Your task to perform on an android device: Open Reddit.com Image 0: 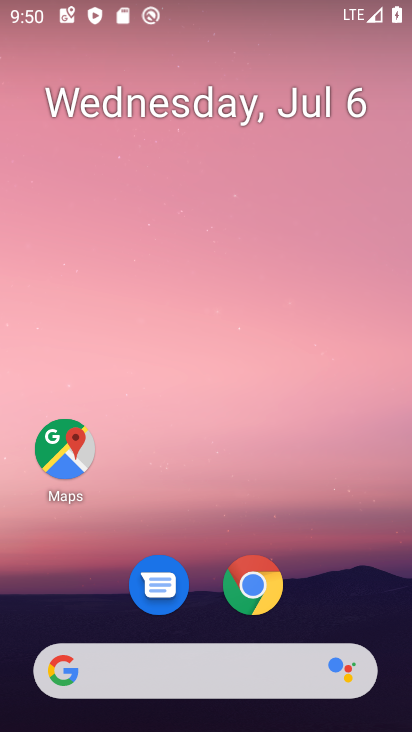
Step 0: drag from (214, 503) to (271, 41)
Your task to perform on an android device: Open Reddit.com Image 1: 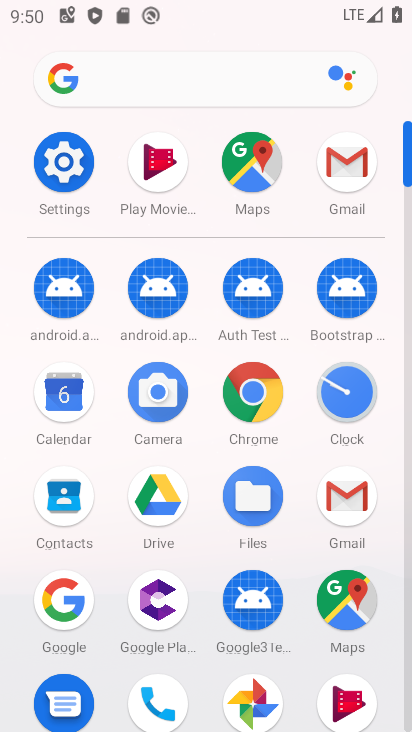
Step 1: click (261, 397)
Your task to perform on an android device: Open Reddit.com Image 2: 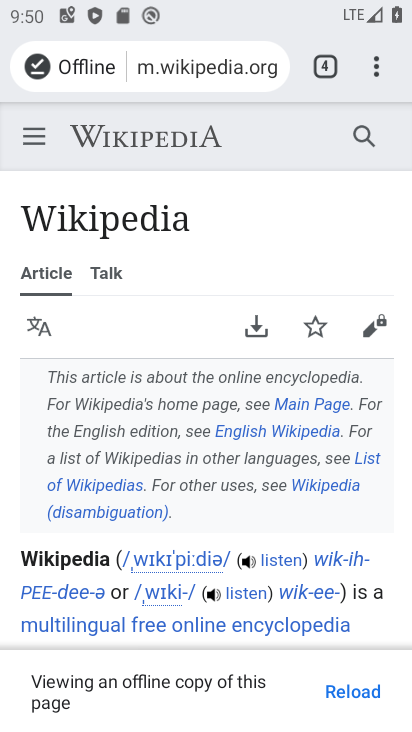
Step 2: click (273, 60)
Your task to perform on an android device: Open Reddit.com Image 3: 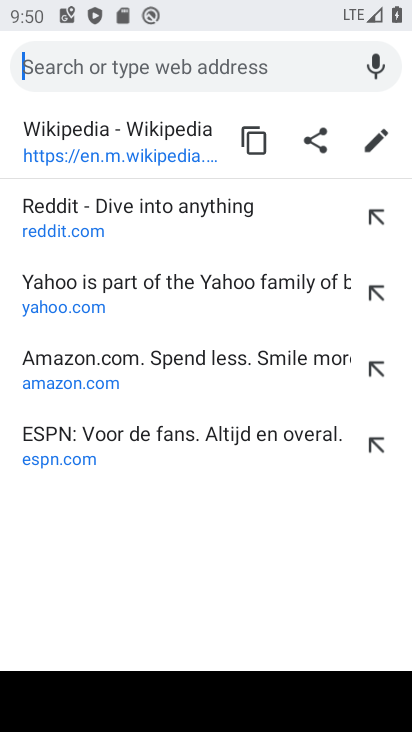
Step 3: click (96, 216)
Your task to perform on an android device: Open Reddit.com Image 4: 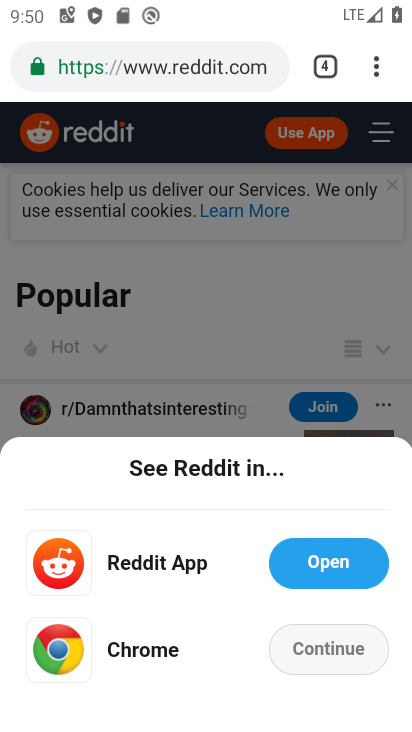
Step 4: task complete